Your task to perform on an android device: Open wifi settings Image 0: 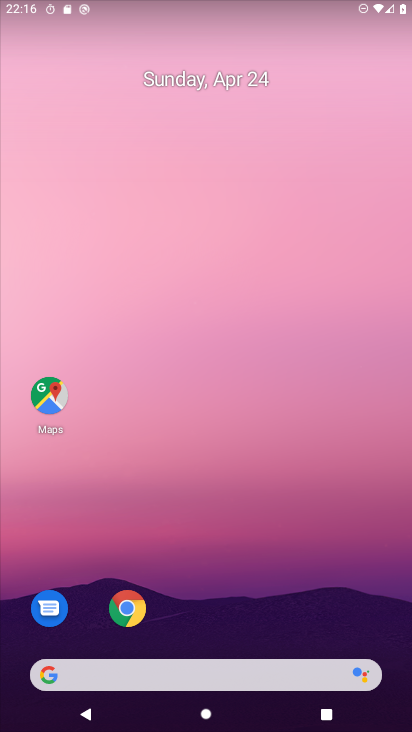
Step 0: drag from (295, 619) to (334, 44)
Your task to perform on an android device: Open wifi settings Image 1: 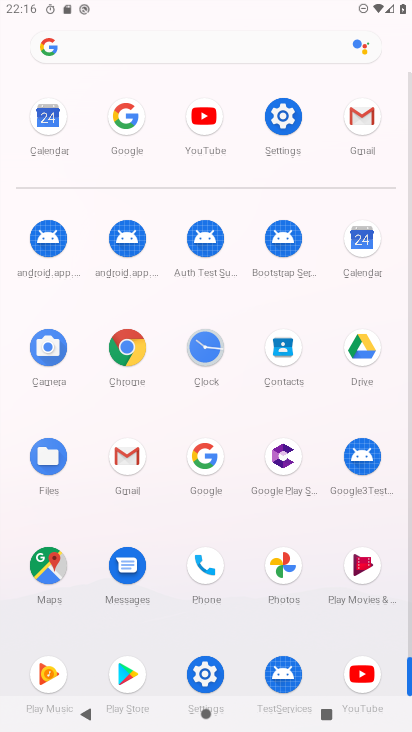
Step 1: click (292, 119)
Your task to perform on an android device: Open wifi settings Image 2: 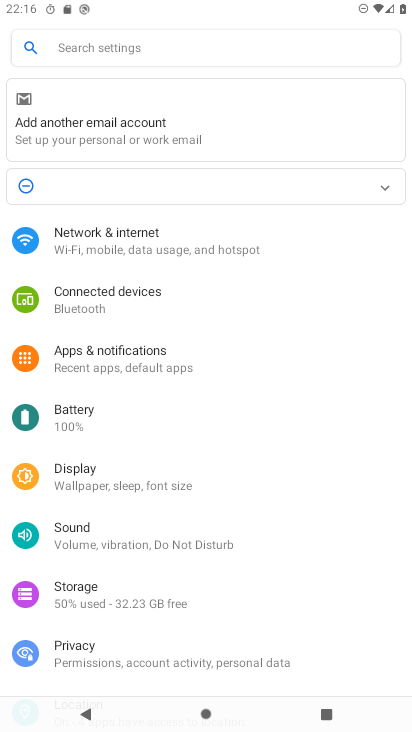
Step 2: click (197, 243)
Your task to perform on an android device: Open wifi settings Image 3: 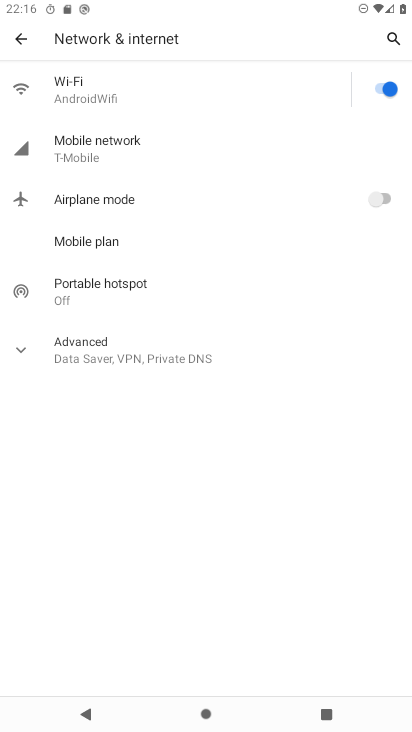
Step 3: click (211, 93)
Your task to perform on an android device: Open wifi settings Image 4: 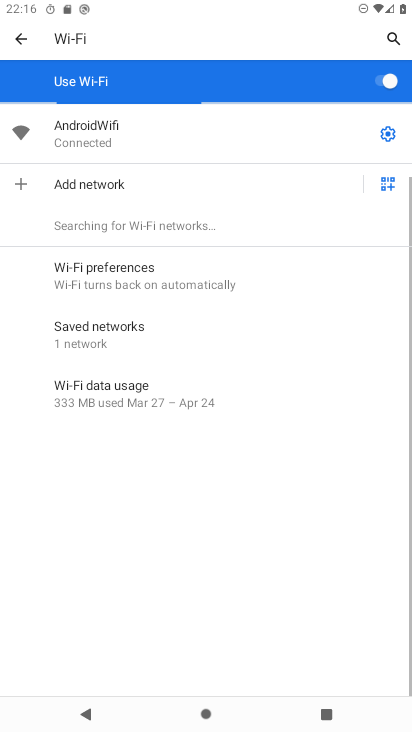
Step 4: task complete